Your task to perform on an android device: Go to Wikipedia Image 0: 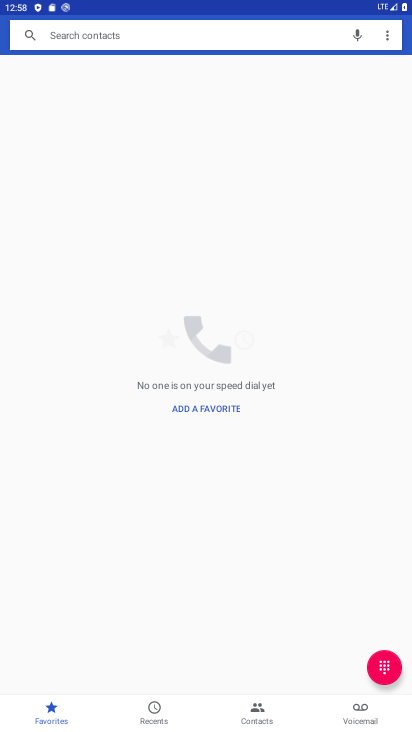
Step 0: press home button
Your task to perform on an android device: Go to Wikipedia Image 1: 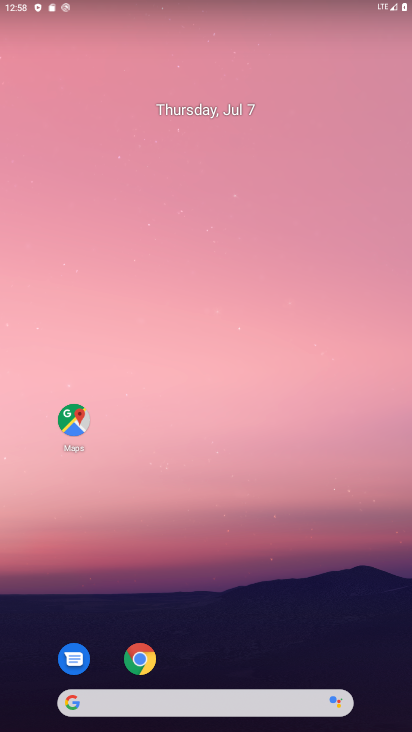
Step 1: click (137, 653)
Your task to perform on an android device: Go to Wikipedia Image 2: 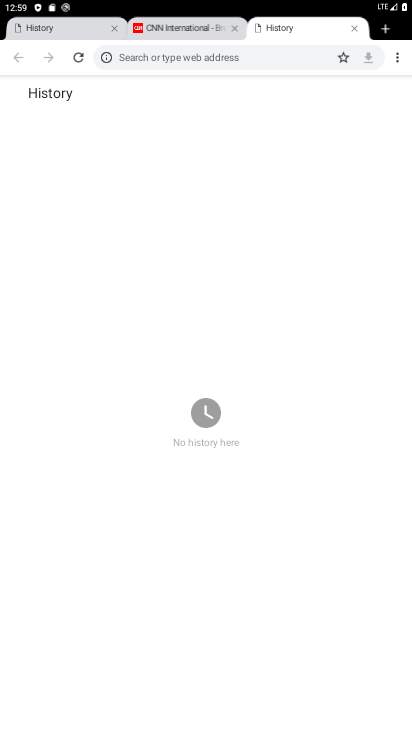
Step 2: click (398, 62)
Your task to perform on an android device: Go to Wikipedia Image 3: 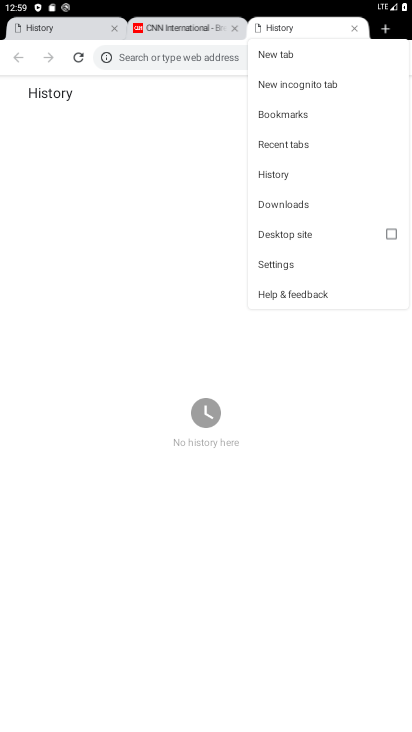
Step 3: click (283, 52)
Your task to perform on an android device: Go to Wikipedia Image 4: 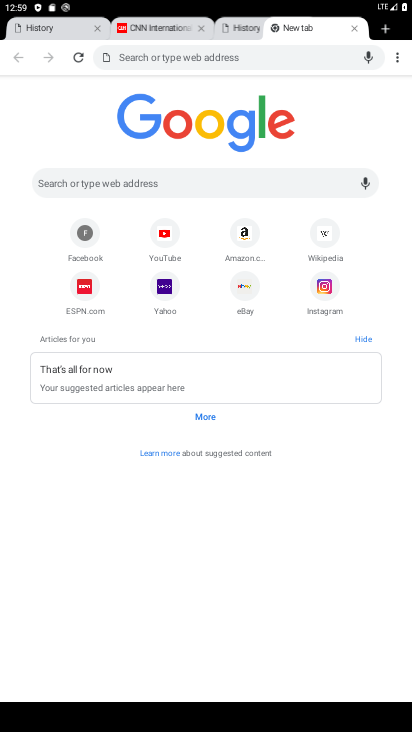
Step 4: click (328, 232)
Your task to perform on an android device: Go to Wikipedia Image 5: 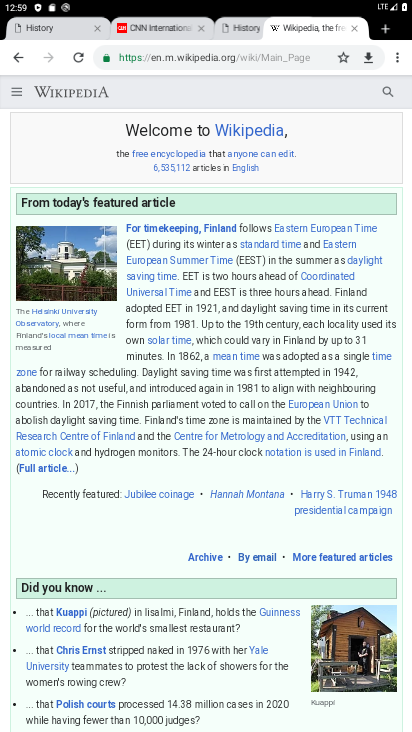
Step 5: task complete